Your task to perform on an android device: What's the weather today? Image 0: 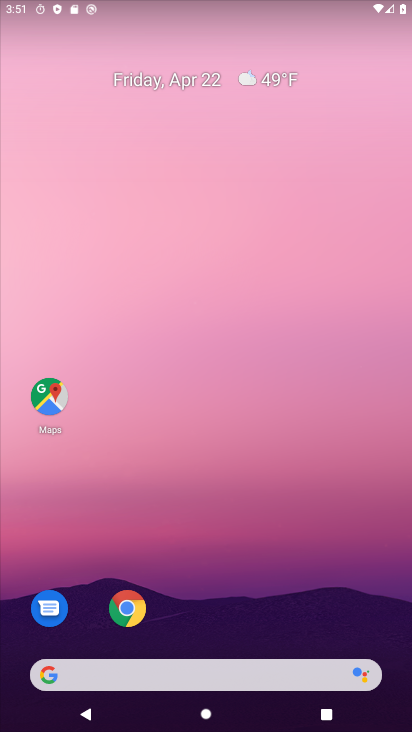
Step 0: drag from (258, 350) to (238, 80)
Your task to perform on an android device: What's the weather today? Image 1: 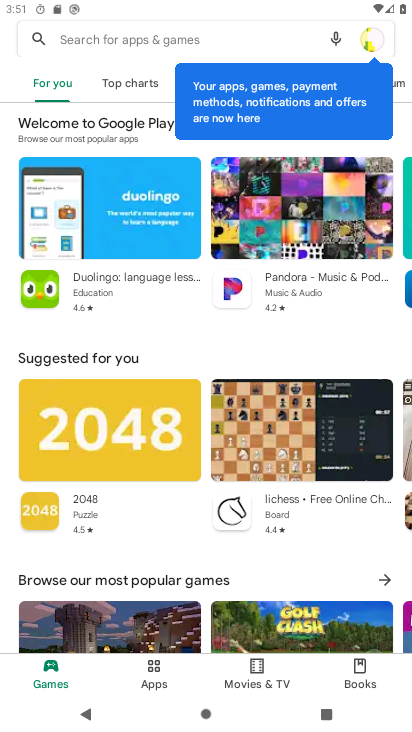
Step 1: press home button
Your task to perform on an android device: What's the weather today? Image 2: 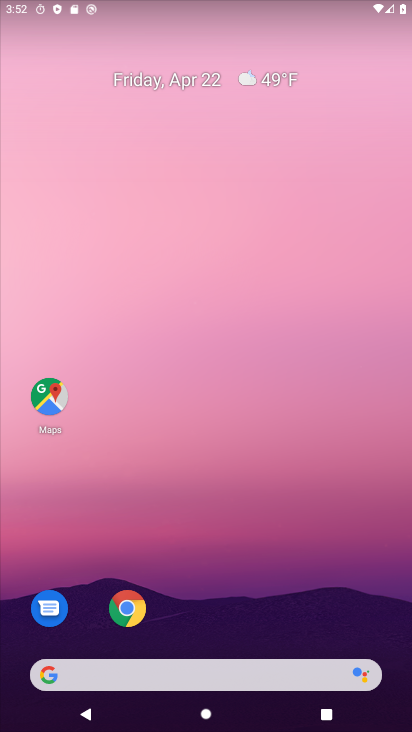
Step 2: click (269, 73)
Your task to perform on an android device: What's the weather today? Image 3: 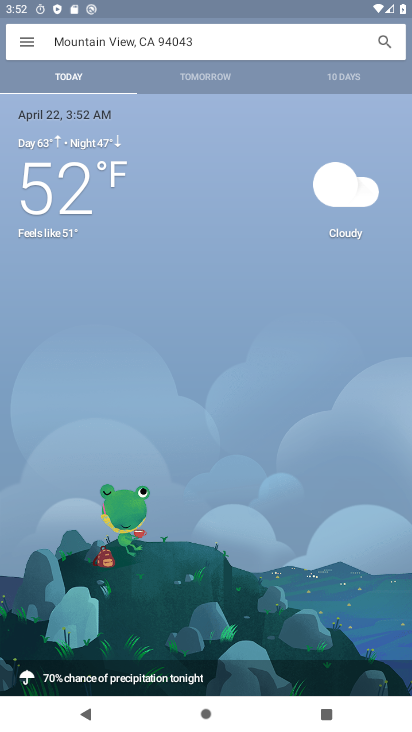
Step 3: task complete